Your task to perform on an android device: Open network settings Image 0: 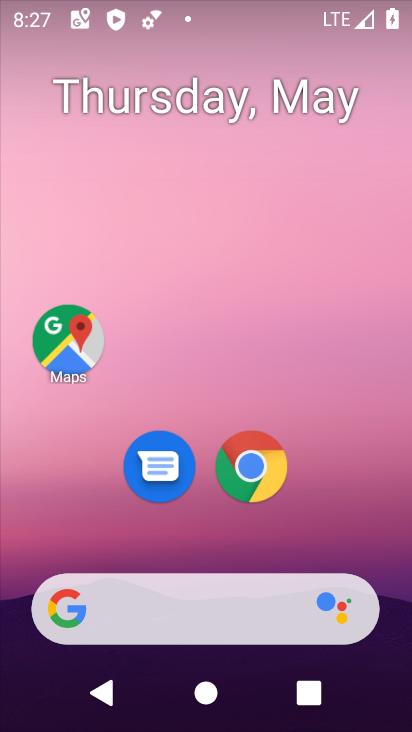
Step 0: drag from (366, 548) to (284, 7)
Your task to perform on an android device: Open network settings Image 1: 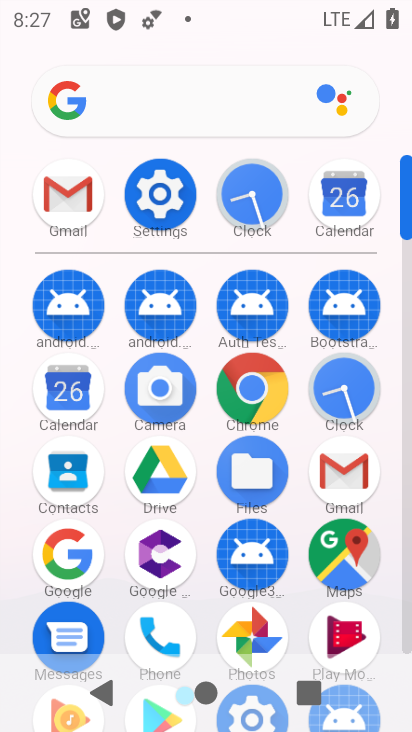
Step 1: click (156, 177)
Your task to perform on an android device: Open network settings Image 2: 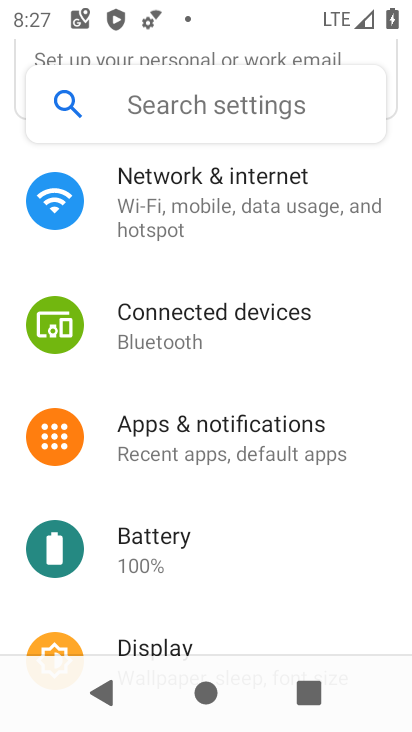
Step 2: click (156, 177)
Your task to perform on an android device: Open network settings Image 3: 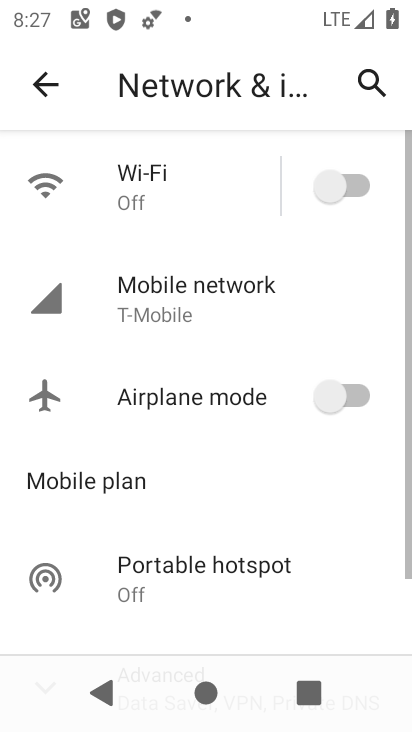
Step 3: click (164, 274)
Your task to perform on an android device: Open network settings Image 4: 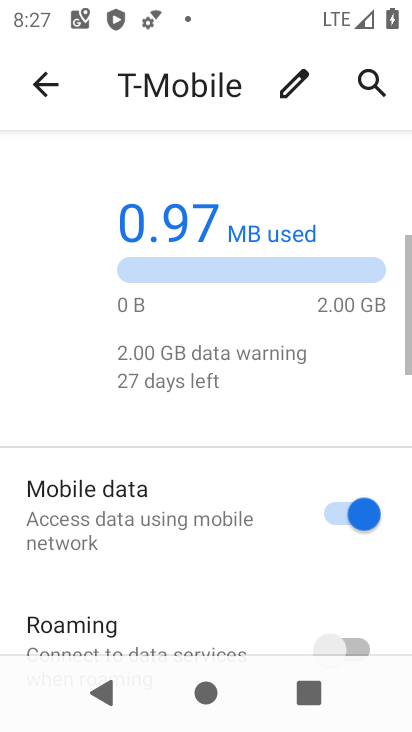
Step 4: drag from (172, 467) to (128, 10)
Your task to perform on an android device: Open network settings Image 5: 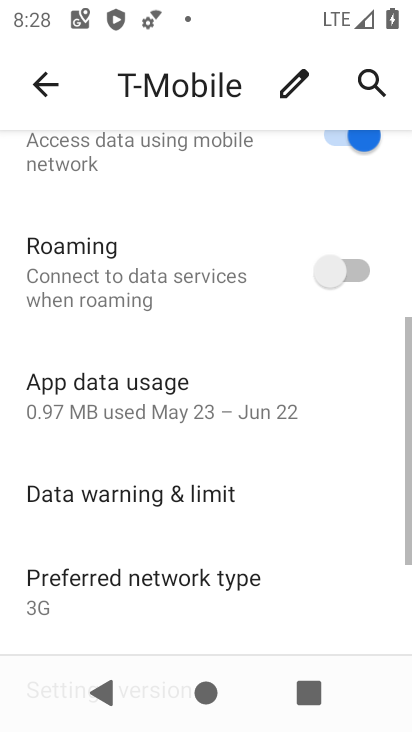
Step 5: drag from (108, 576) to (128, 177)
Your task to perform on an android device: Open network settings Image 6: 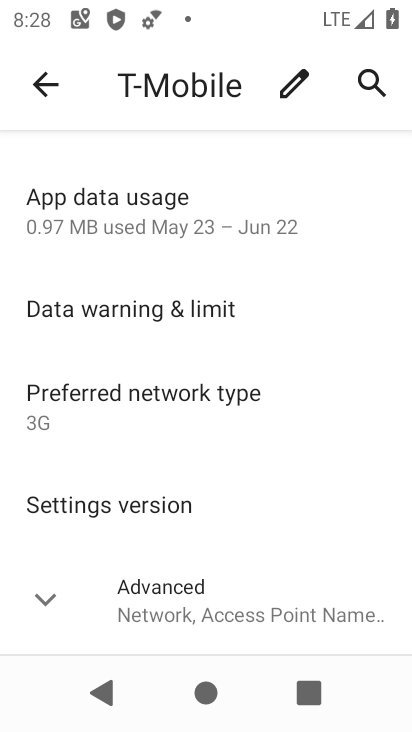
Step 6: click (40, 597)
Your task to perform on an android device: Open network settings Image 7: 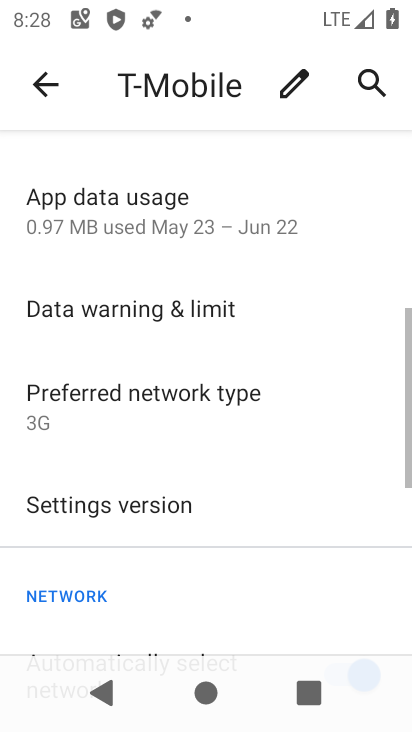
Step 7: task complete